Your task to perform on an android device: search for starred emails in the gmail app Image 0: 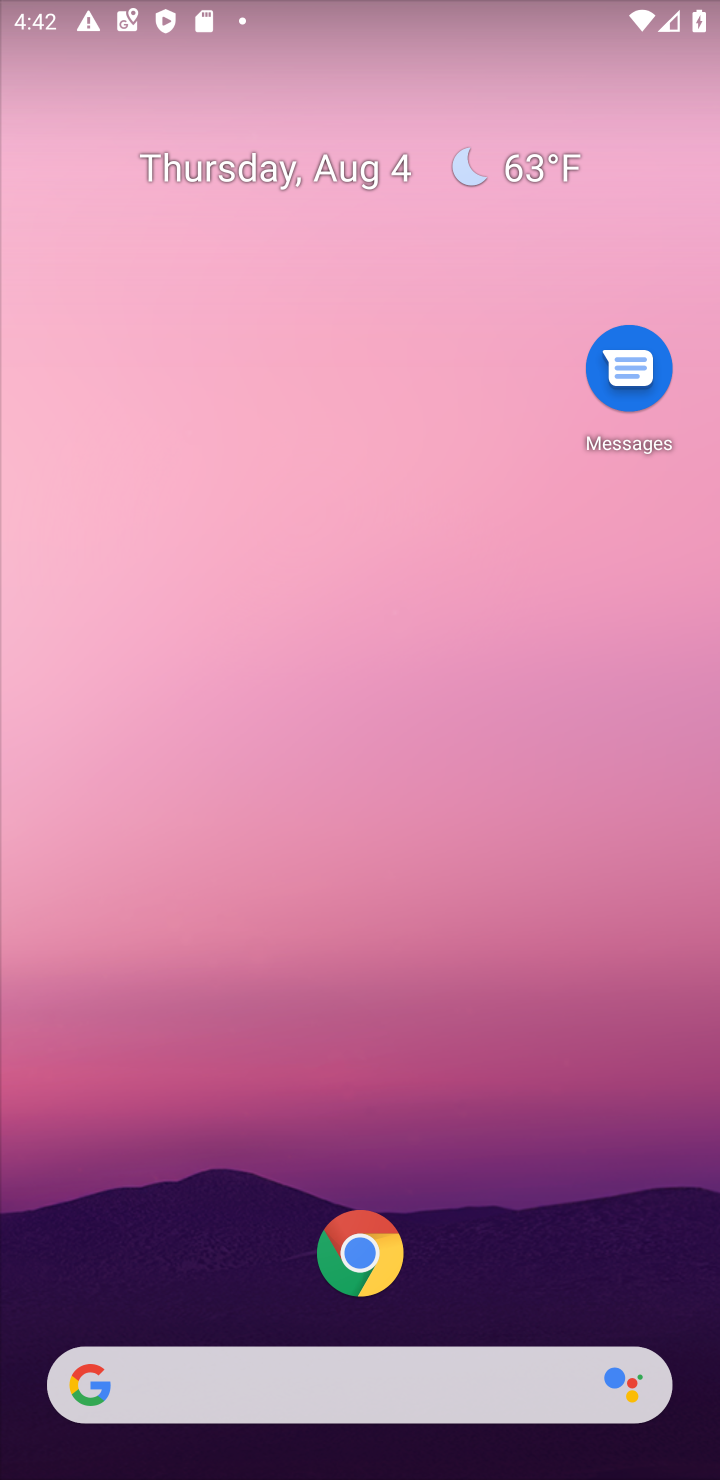
Step 0: drag from (192, 922) to (192, 557)
Your task to perform on an android device: search for starred emails in the gmail app Image 1: 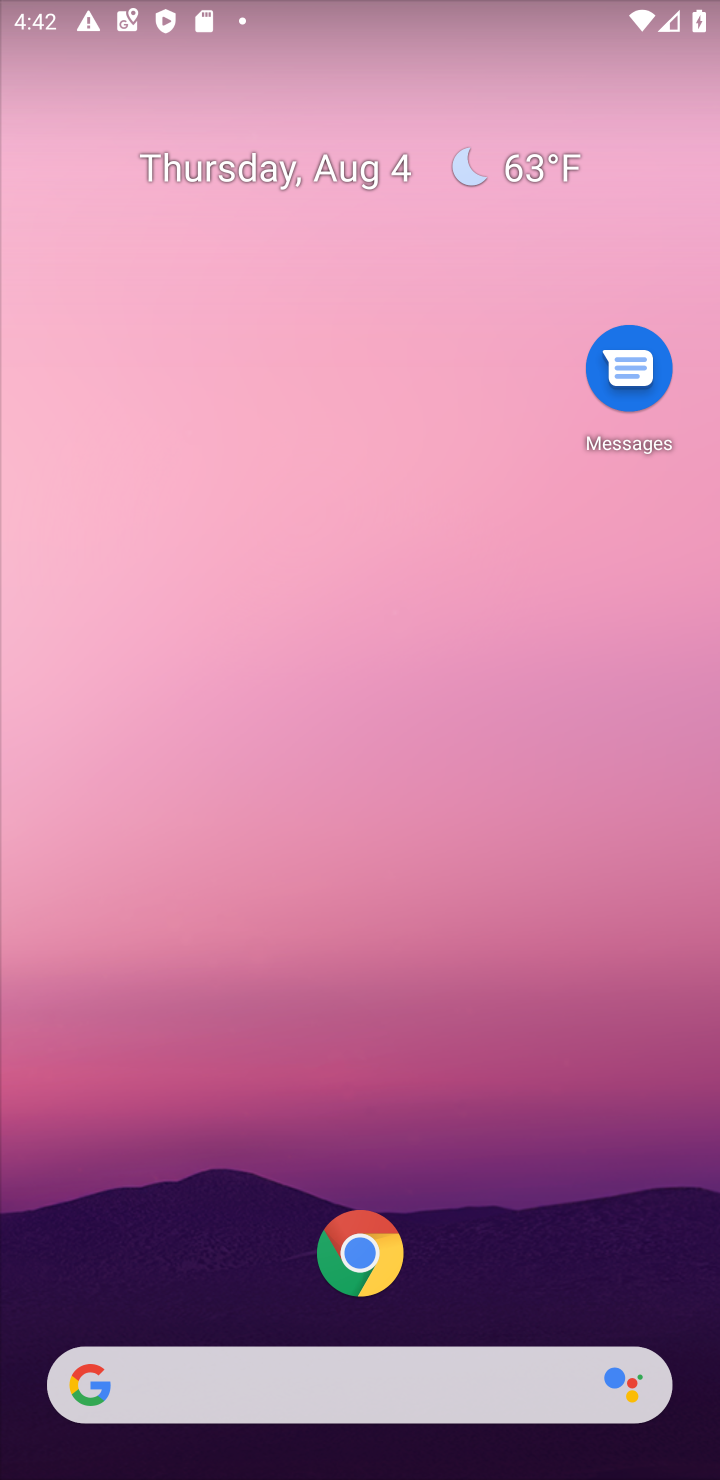
Step 1: drag from (435, 1290) to (423, 331)
Your task to perform on an android device: search for starred emails in the gmail app Image 2: 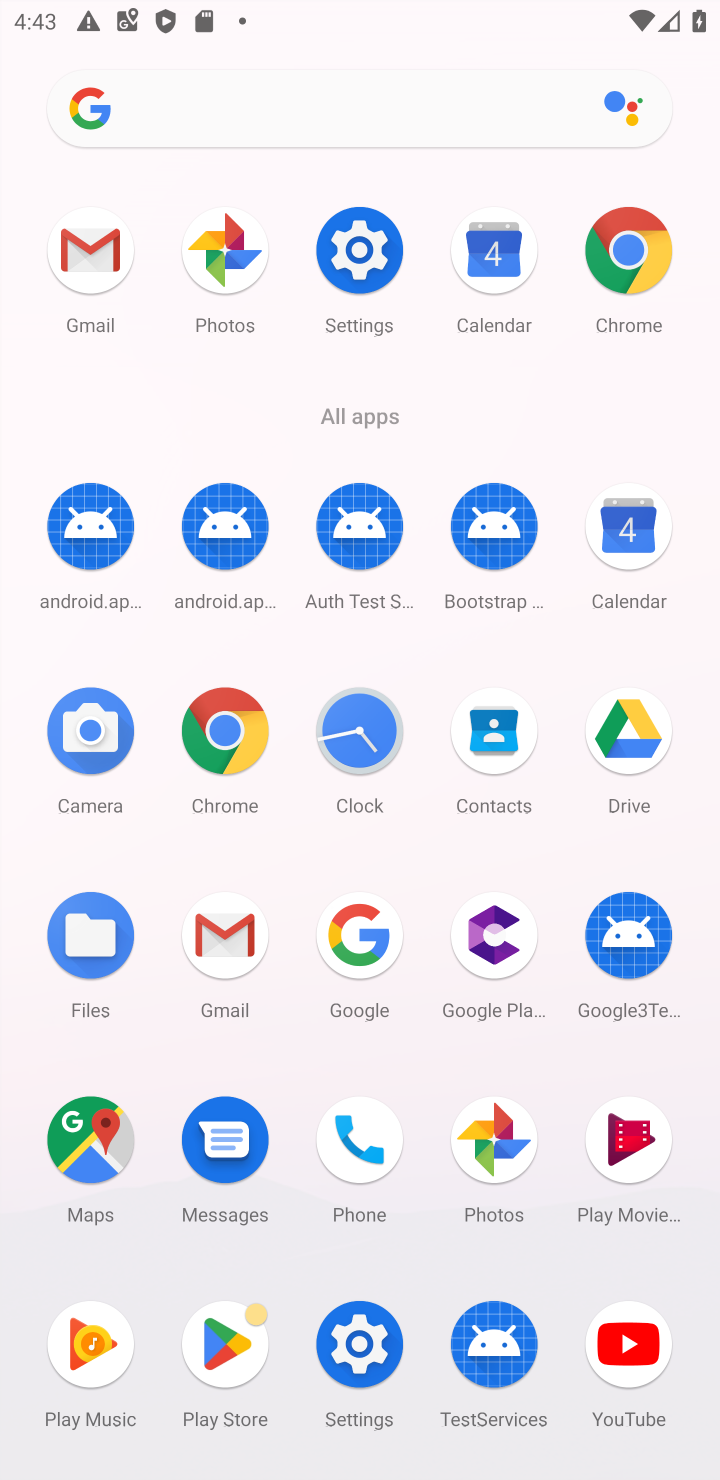
Step 2: click (227, 953)
Your task to perform on an android device: search for starred emails in the gmail app Image 3: 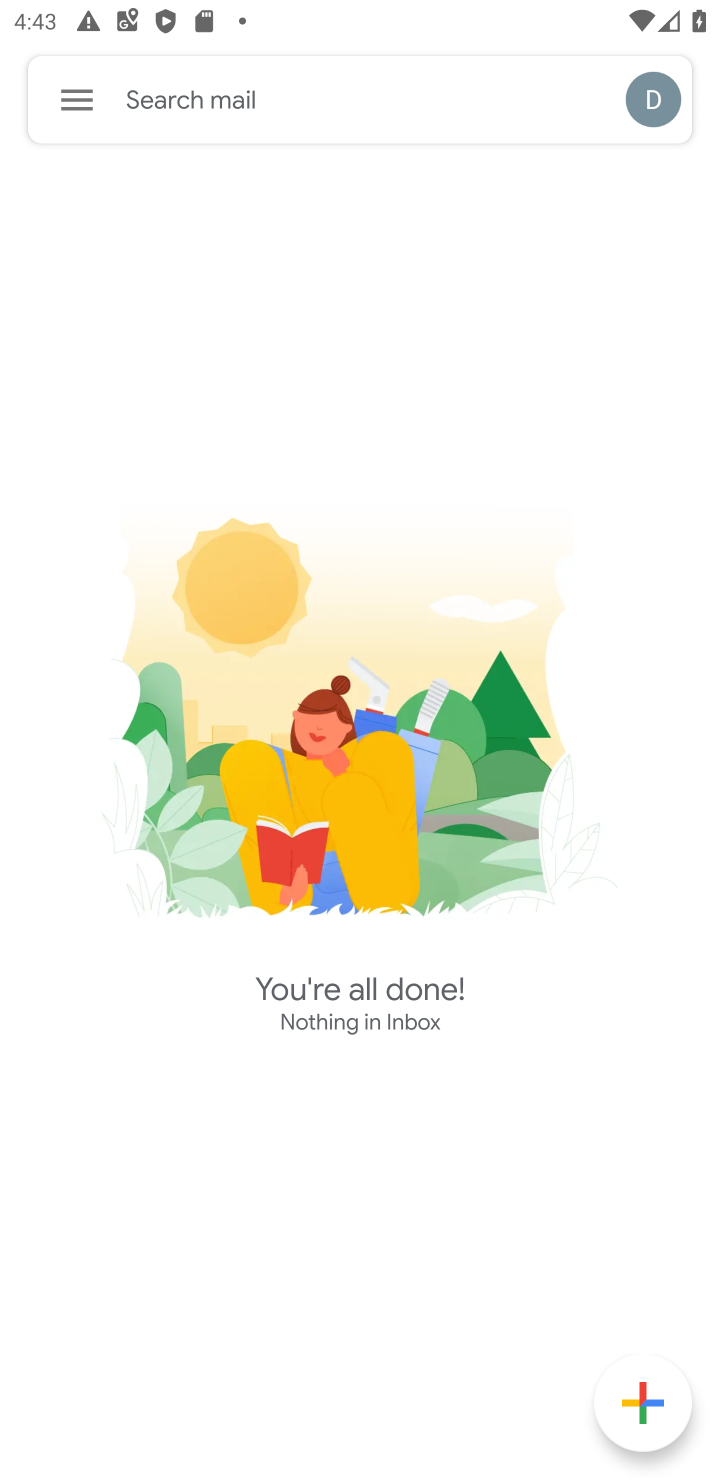
Step 3: click (72, 86)
Your task to perform on an android device: search for starred emails in the gmail app Image 4: 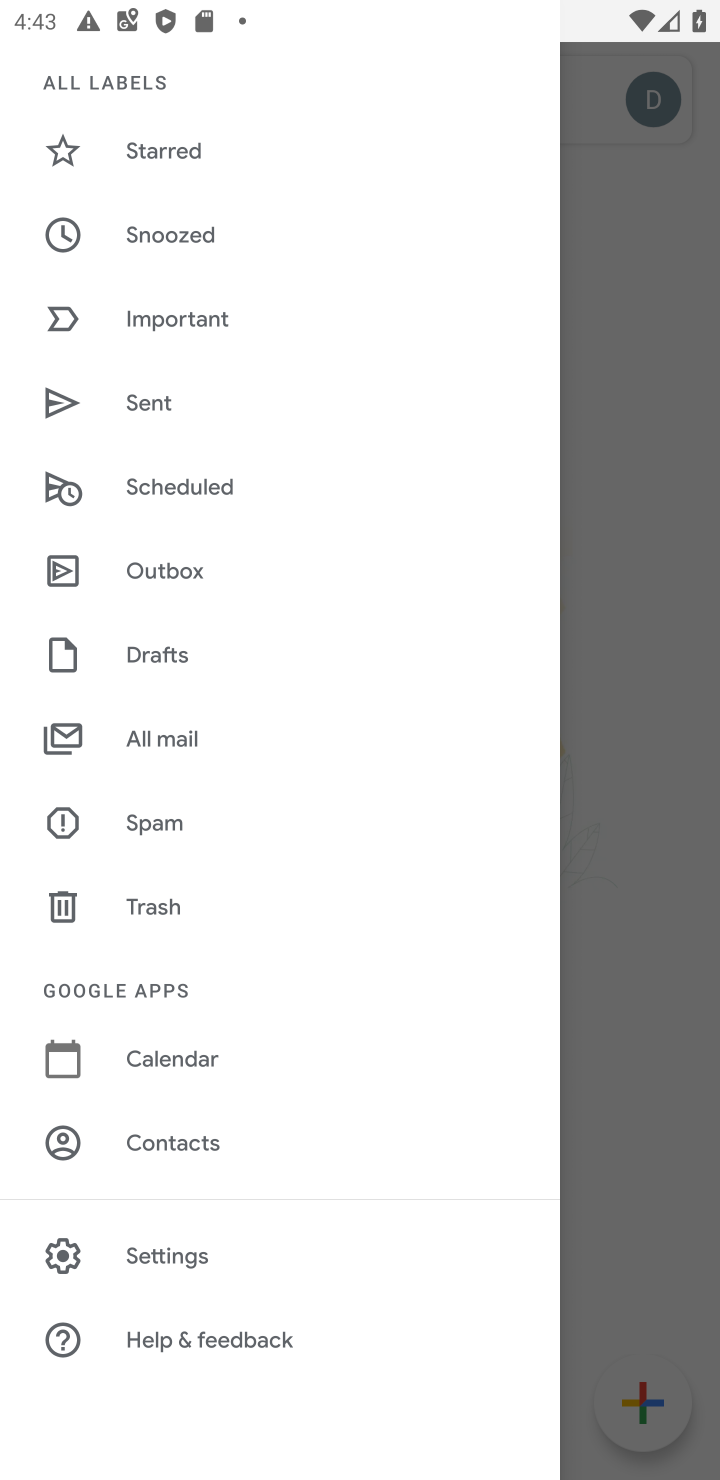
Step 4: click (154, 158)
Your task to perform on an android device: search for starred emails in the gmail app Image 5: 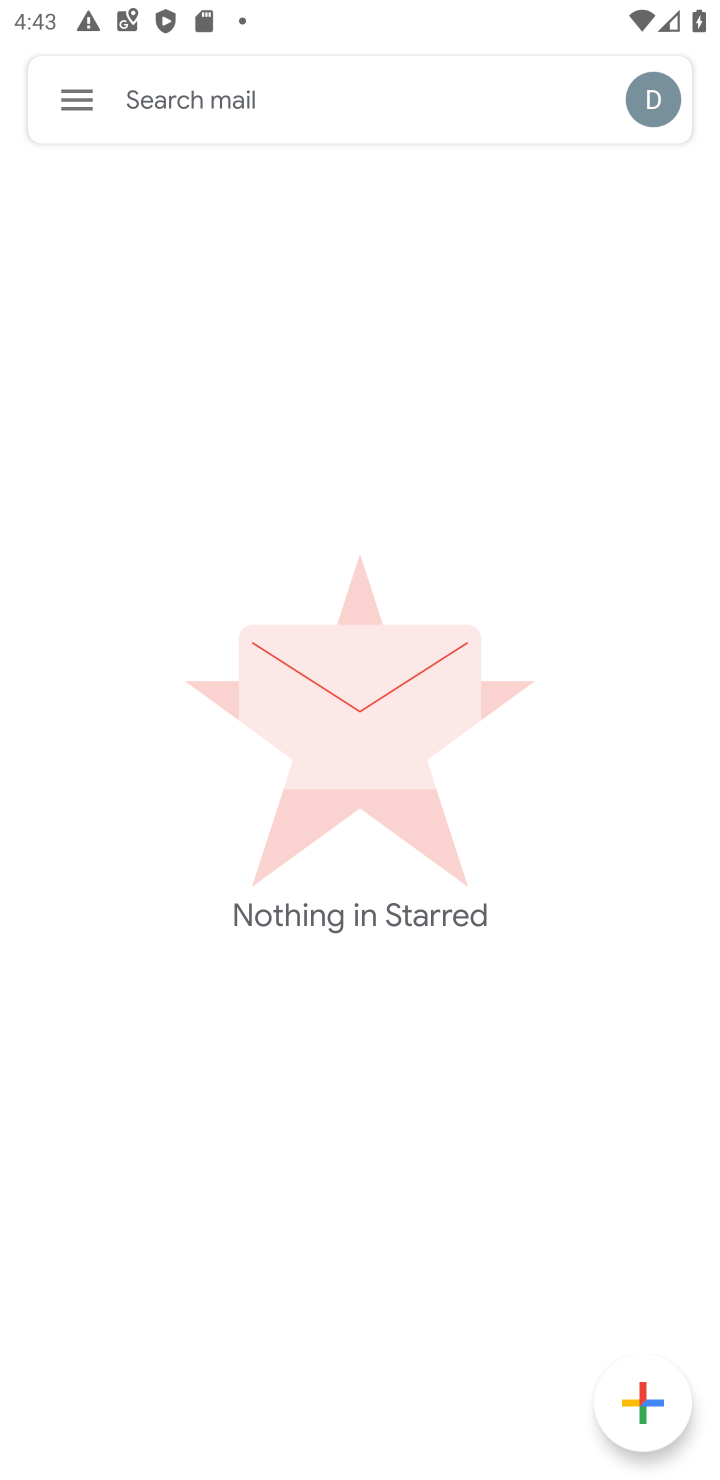
Step 5: task complete